Your task to perform on an android device: Go to Google maps Image 0: 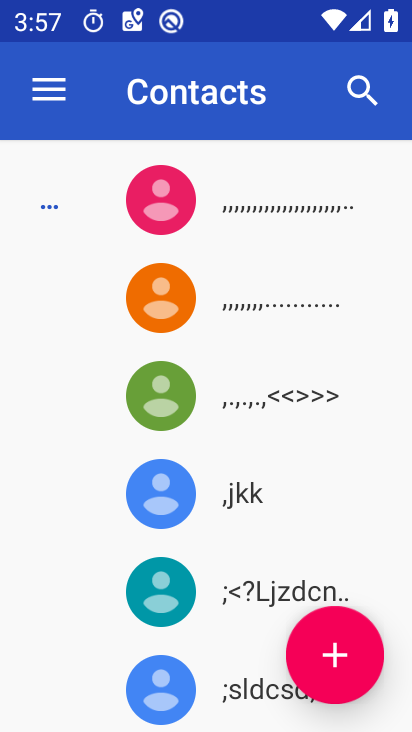
Step 0: press home button
Your task to perform on an android device: Go to Google maps Image 1: 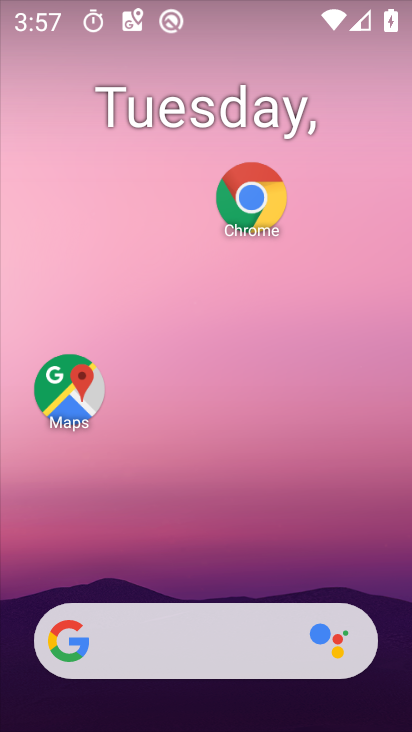
Step 1: click (67, 390)
Your task to perform on an android device: Go to Google maps Image 2: 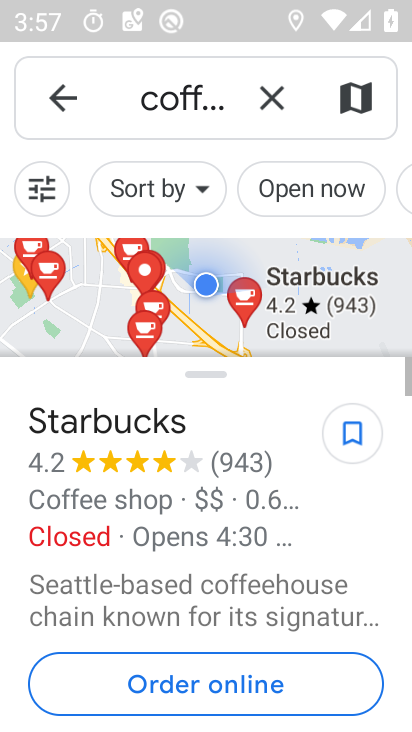
Step 2: click (277, 83)
Your task to perform on an android device: Go to Google maps Image 3: 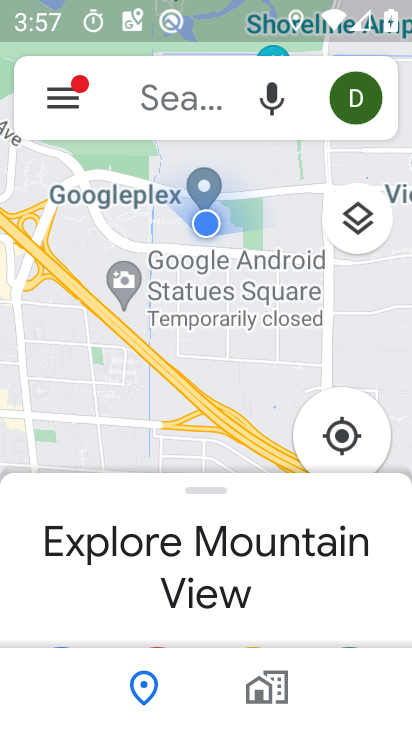
Step 3: task complete